Your task to perform on an android device: Open the map Image 0: 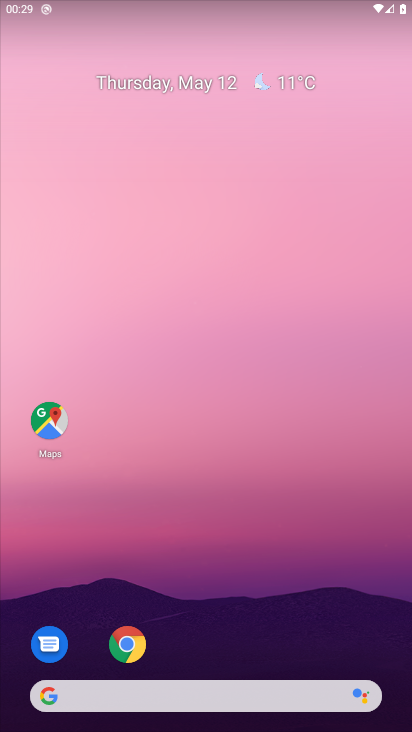
Step 0: press home button
Your task to perform on an android device: Open the map Image 1: 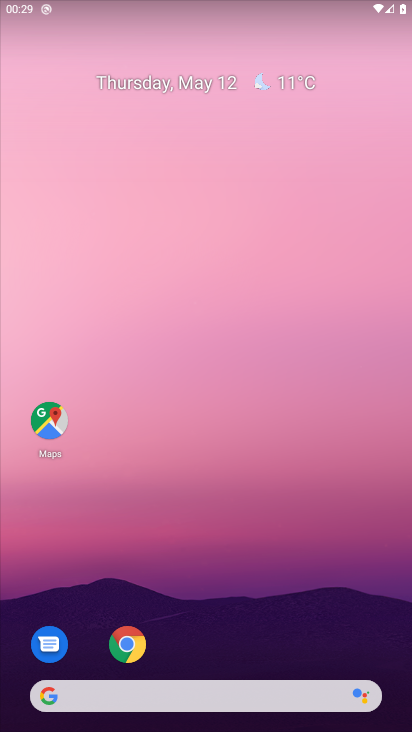
Step 1: drag from (213, 657) to (189, 91)
Your task to perform on an android device: Open the map Image 2: 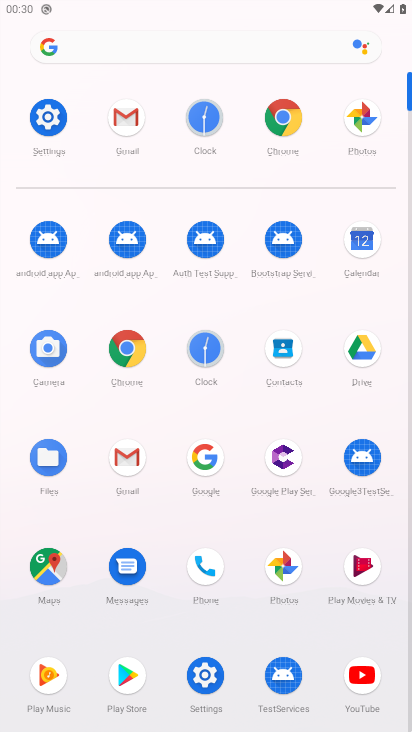
Step 2: click (45, 565)
Your task to perform on an android device: Open the map Image 3: 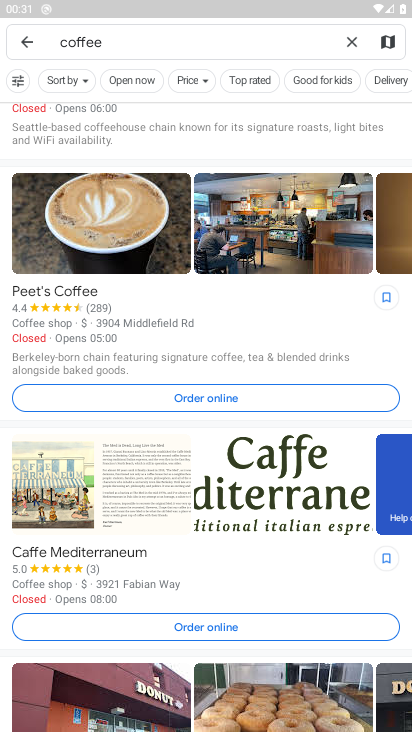
Step 3: click (23, 39)
Your task to perform on an android device: Open the map Image 4: 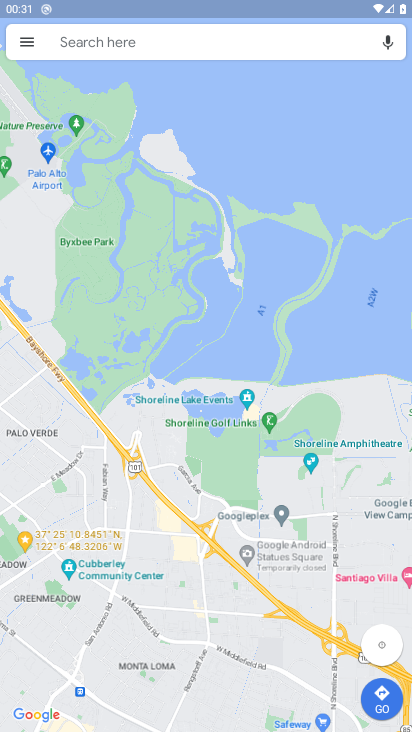
Step 4: task complete